Your task to perform on an android device: Open the phone app and click the voicemail tab. Image 0: 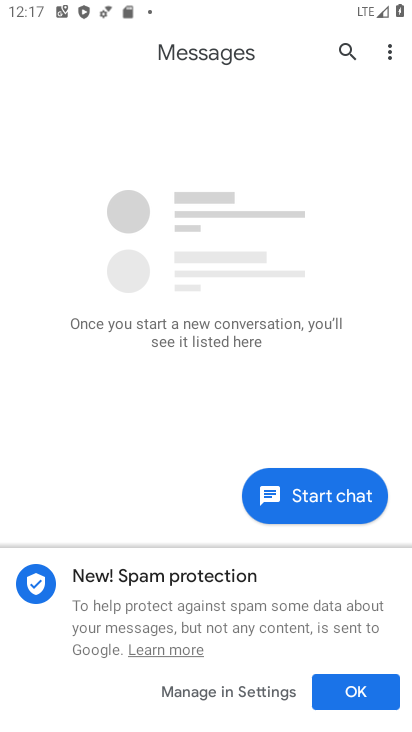
Step 0: press home button
Your task to perform on an android device: Open the phone app and click the voicemail tab. Image 1: 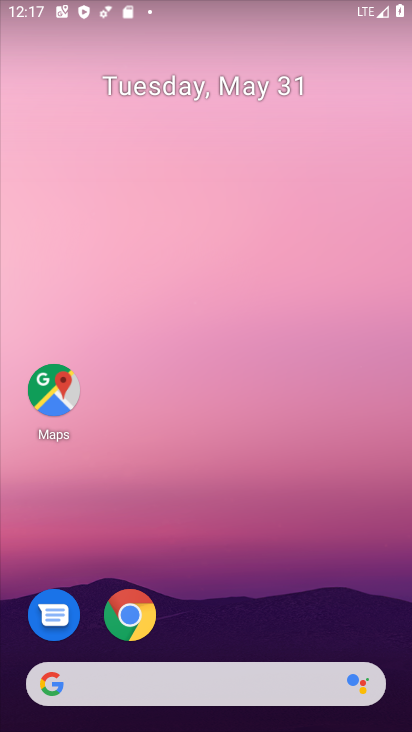
Step 1: drag from (186, 634) to (310, 10)
Your task to perform on an android device: Open the phone app and click the voicemail tab. Image 2: 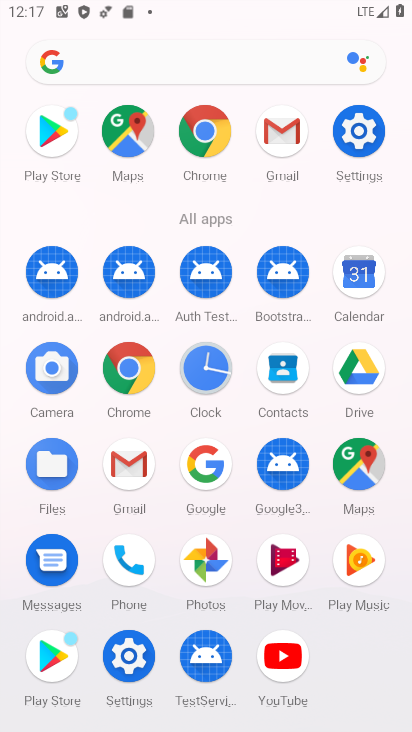
Step 2: click (142, 565)
Your task to perform on an android device: Open the phone app and click the voicemail tab. Image 3: 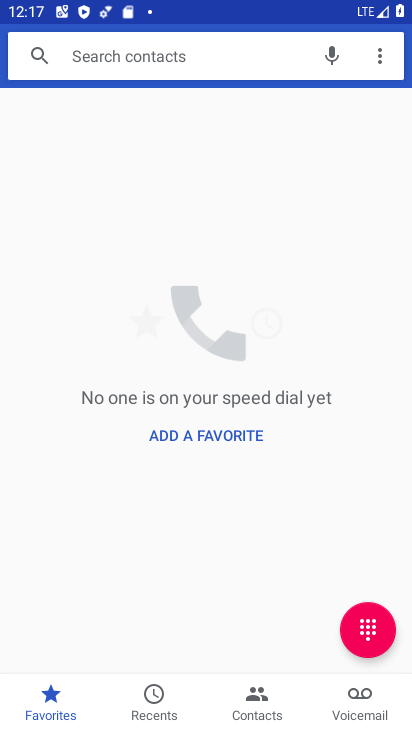
Step 3: click (354, 710)
Your task to perform on an android device: Open the phone app and click the voicemail tab. Image 4: 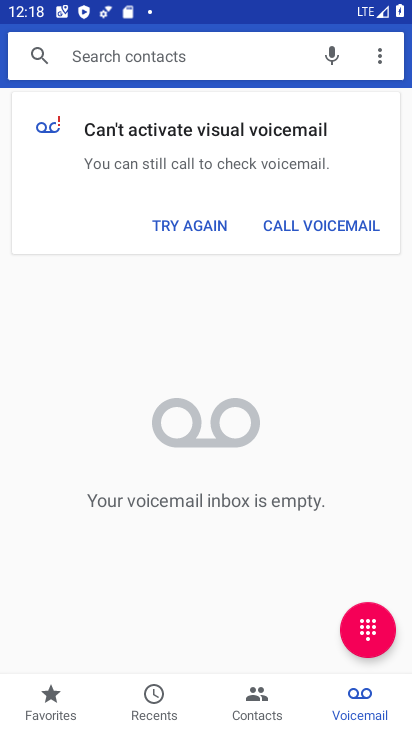
Step 4: task complete